Your task to perform on an android device: Empty the shopping cart on walmart. Add alienware area 51 to the cart on walmart Image 0: 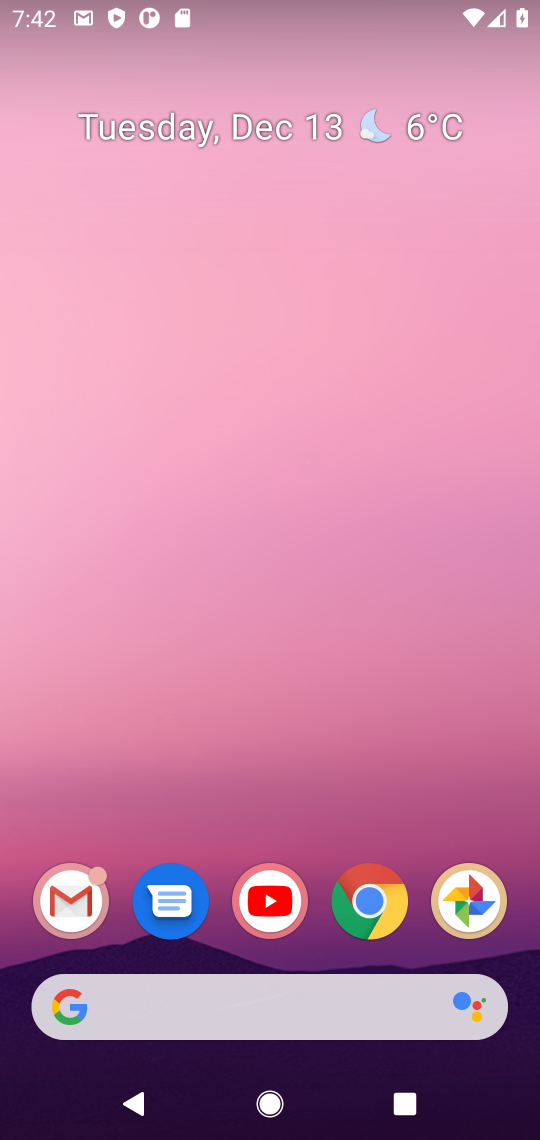
Step 0: click (364, 886)
Your task to perform on an android device: Empty the shopping cart on walmart. Add alienware area 51 to the cart on walmart Image 1: 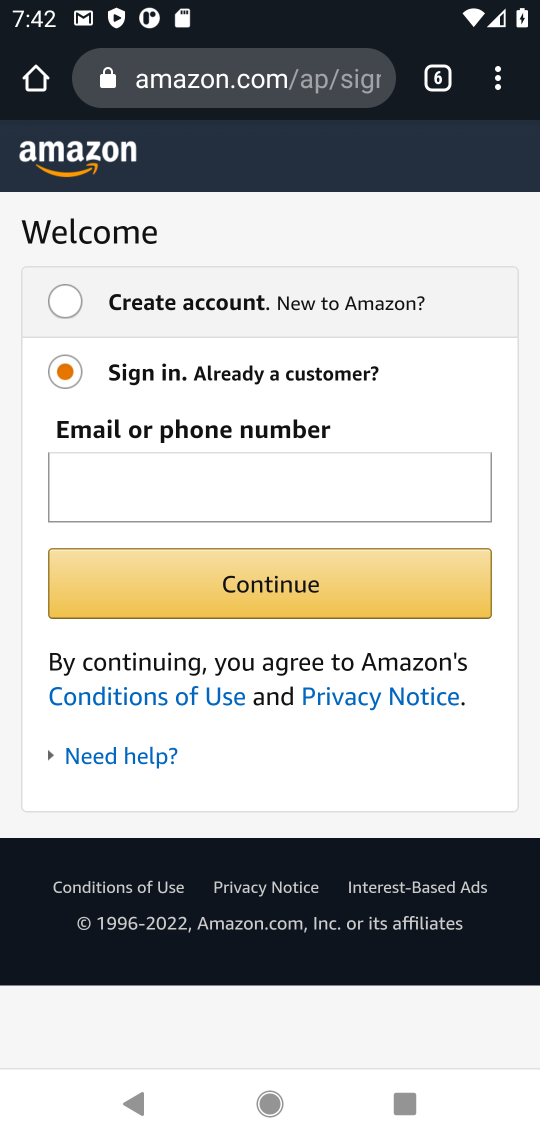
Step 1: click (437, 70)
Your task to perform on an android device: Empty the shopping cart on walmart. Add alienware area 51 to the cart on walmart Image 2: 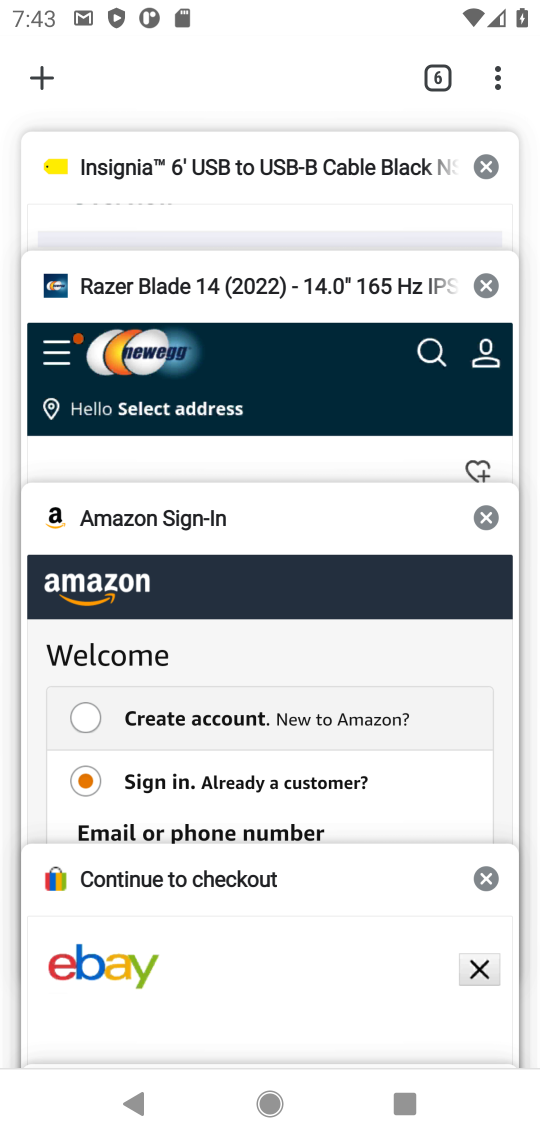
Step 2: drag from (196, 945) to (229, 740)
Your task to perform on an android device: Empty the shopping cart on walmart. Add alienware area 51 to the cart on walmart Image 3: 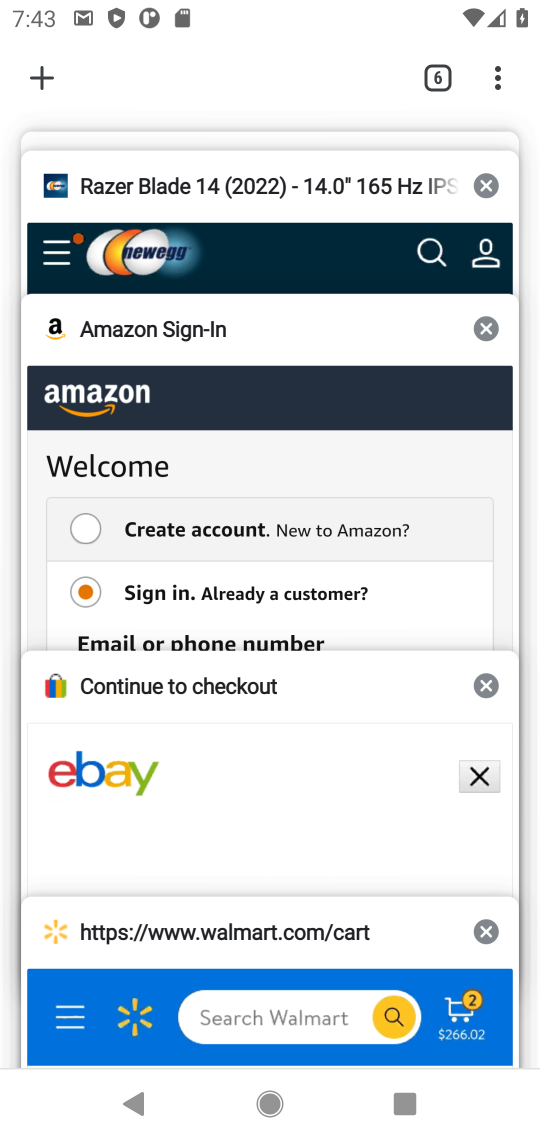
Step 3: click (120, 960)
Your task to perform on an android device: Empty the shopping cart on walmart. Add alienware area 51 to the cart on walmart Image 4: 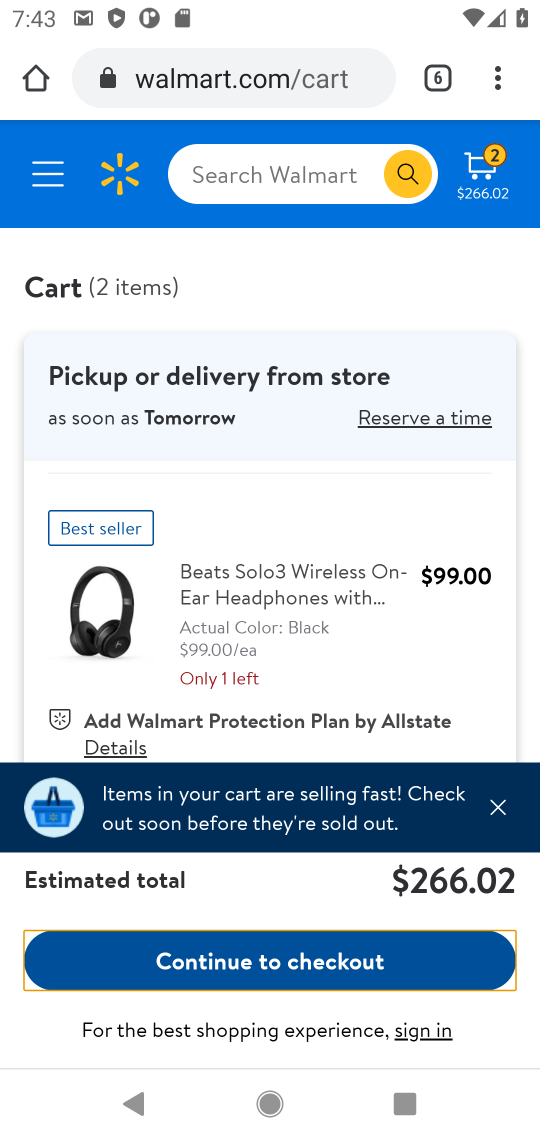
Step 4: click (500, 810)
Your task to perform on an android device: Empty the shopping cart on walmart. Add alienware area 51 to the cart on walmart Image 5: 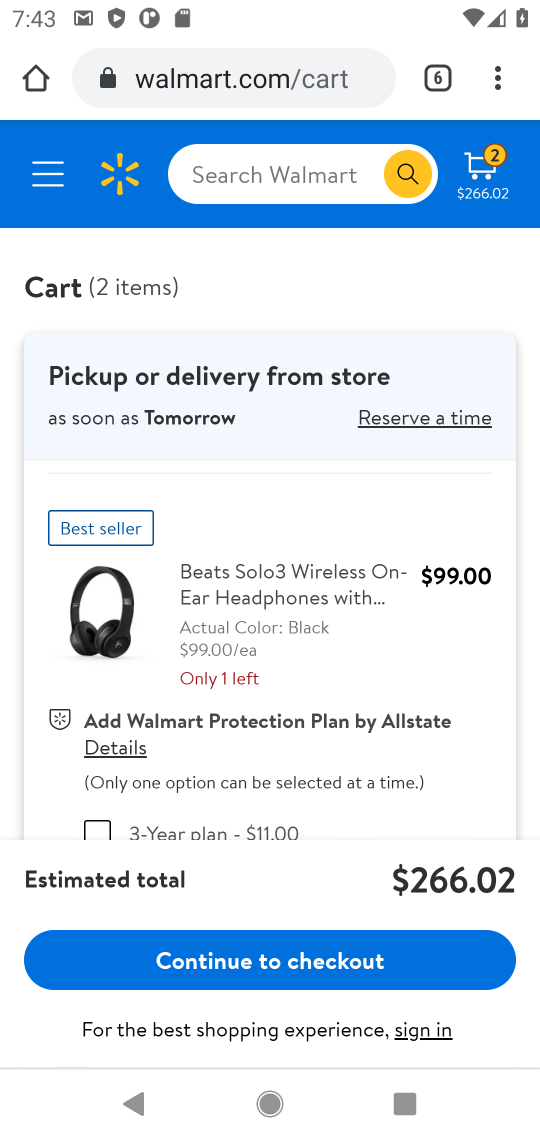
Step 5: drag from (324, 779) to (391, 496)
Your task to perform on an android device: Empty the shopping cart on walmart. Add alienware area 51 to the cart on walmart Image 6: 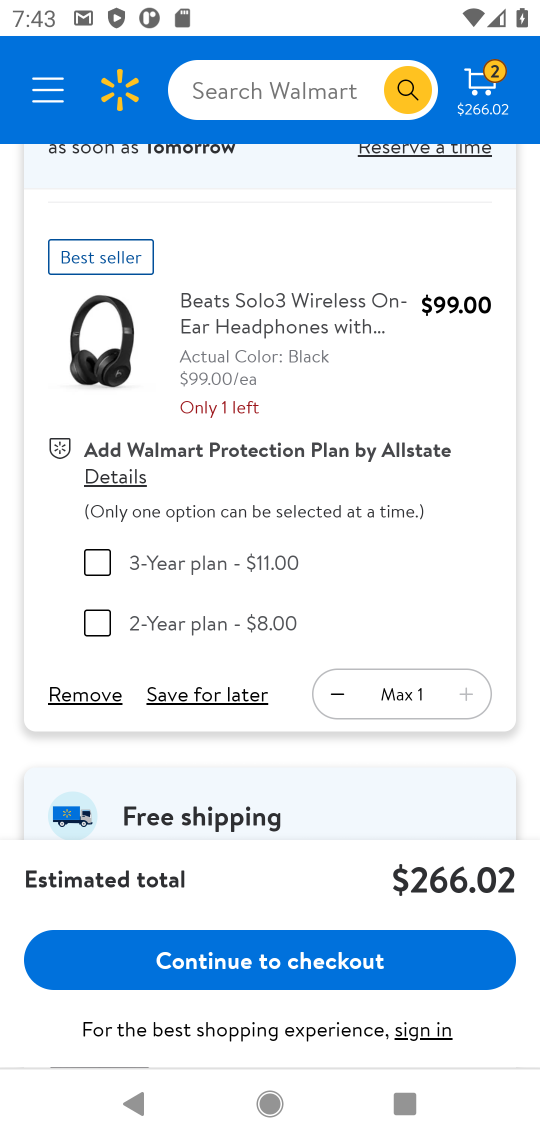
Step 6: click (81, 699)
Your task to perform on an android device: Empty the shopping cart on walmart. Add alienware area 51 to the cart on walmart Image 7: 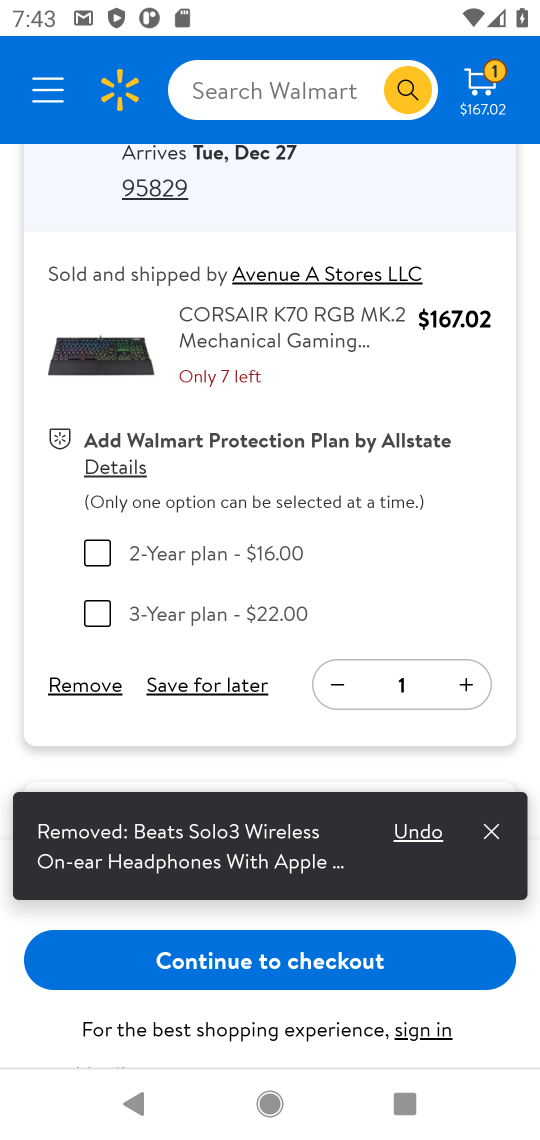
Step 7: click (79, 690)
Your task to perform on an android device: Empty the shopping cart on walmart. Add alienware area 51 to the cart on walmart Image 8: 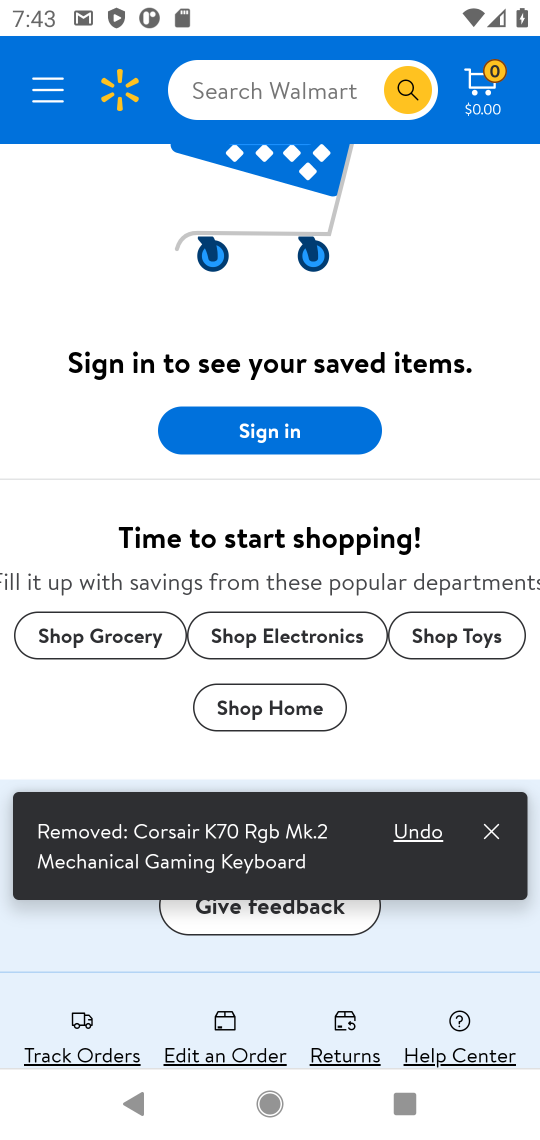
Step 8: click (312, 97)
Your task to perform on an android device: Empty the shopping cart on walmart. Add alienware area 51 to the cart on walmart Image 9: 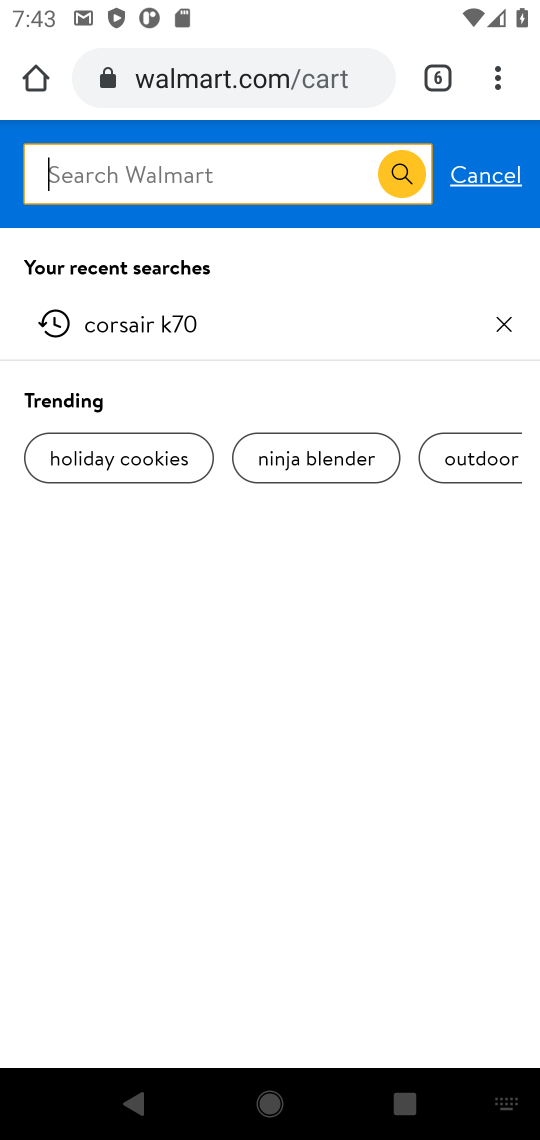
Step 9: type "alienware area 51 "
Your task to perform on an android device: Empty the shopping cart on walmart. Add alienware area 51 to the cart on walmart Image 10: 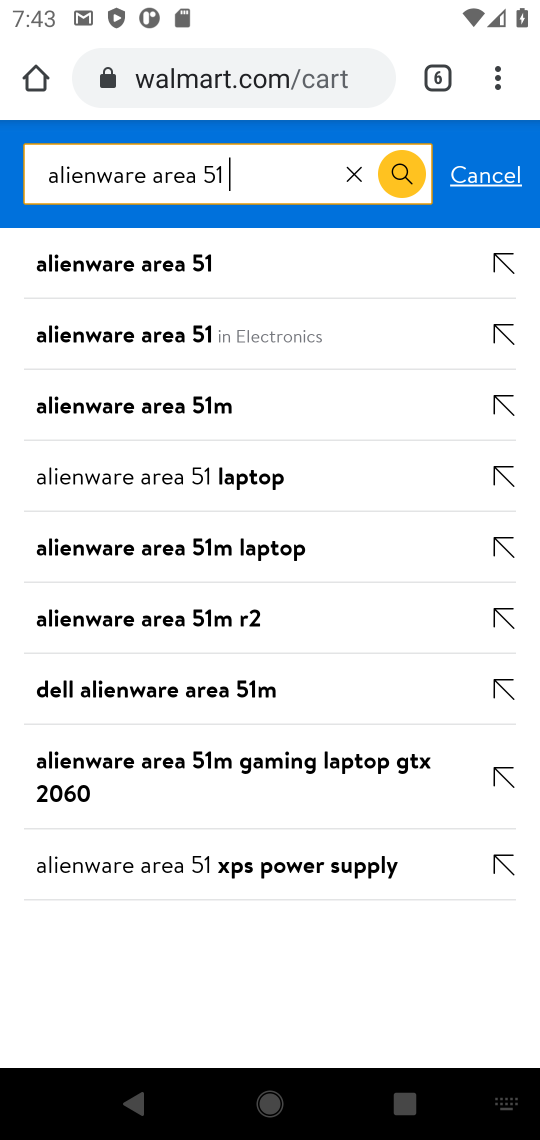
Step 10: click (146, 333)
Your task to perform on an android device: Empty the shopping cart on walmart. Add alienware area 51 to the cart on walmart Image 11: 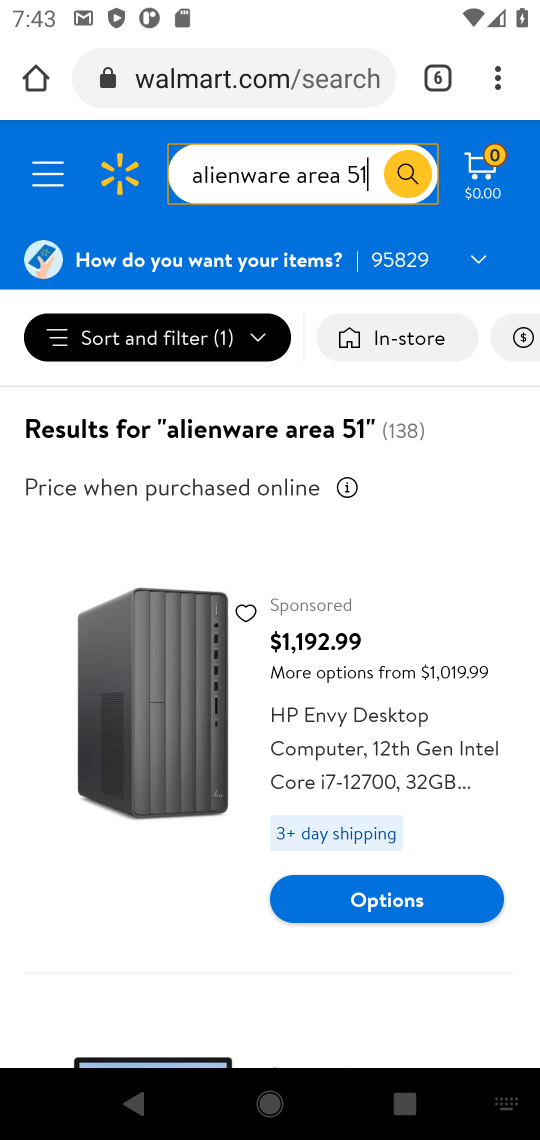
Step 11: drag from (238, 915) to (317, 552)
Your task to perform on an android device: Empty the shopping cart on walmart. Add alienware area 51 to the cart on walmart Image 12: 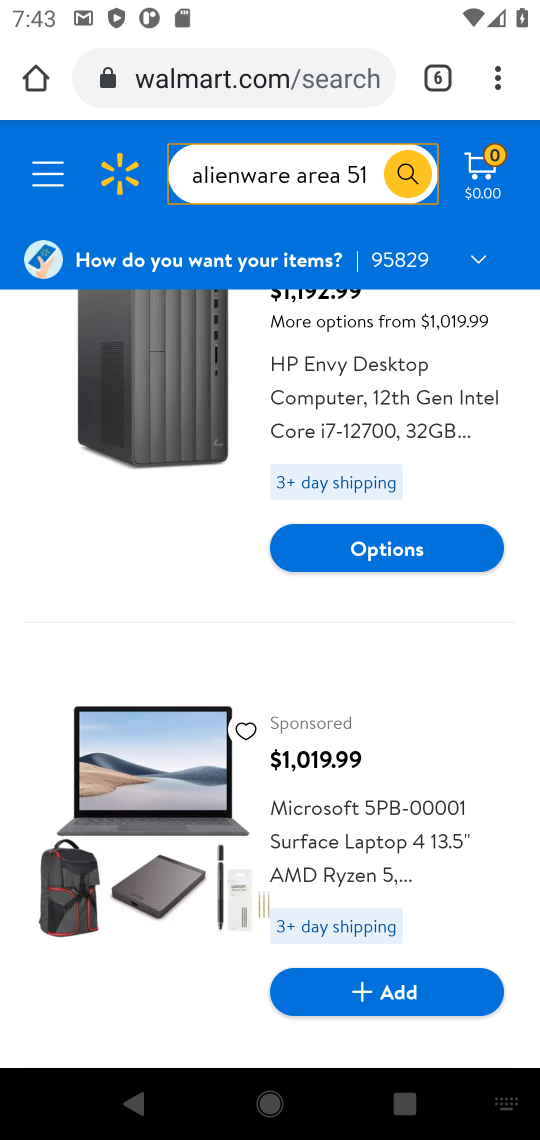
Step 12: drag from (211, 976) to (362, 476)
Your task to perform on an android device: Empty the shopping cart on walmart. Add alienware area 51 to the cart on walmart Image 13: 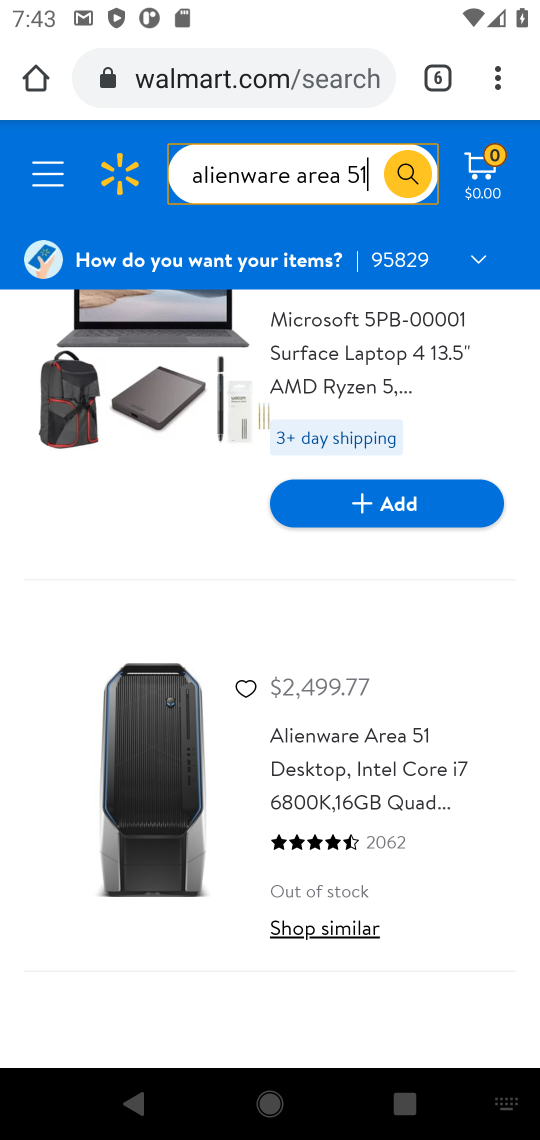
Step 13: click (310, 772)
Your task to perform on an android device: Empty the shopping cart on walmart. Add alienware area 51 to the cart on walmart Image 14: 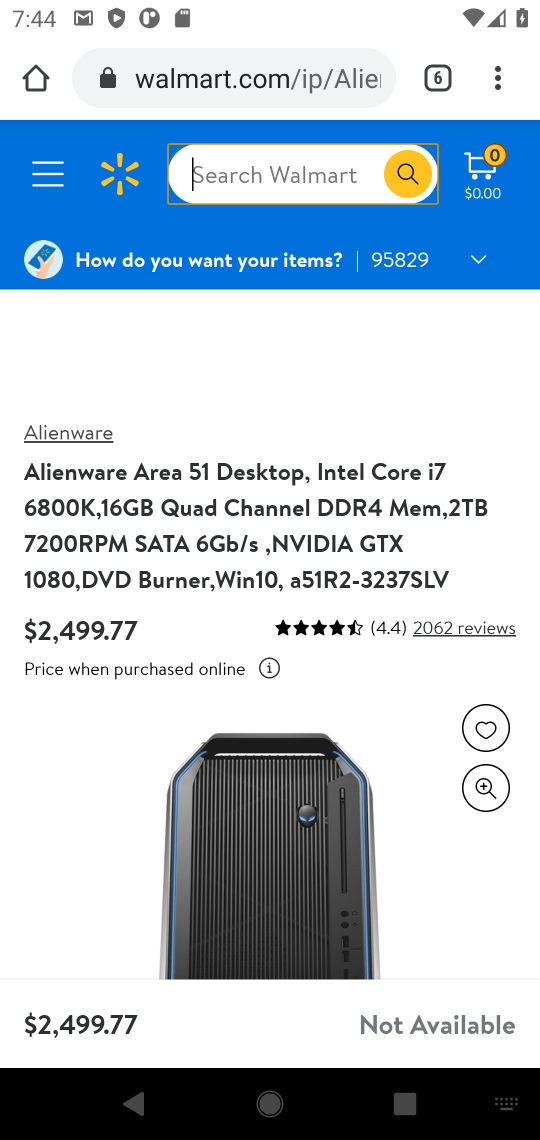
Step 14: task complete